Your task to perform on an android device: change text size in settings app Image 0: 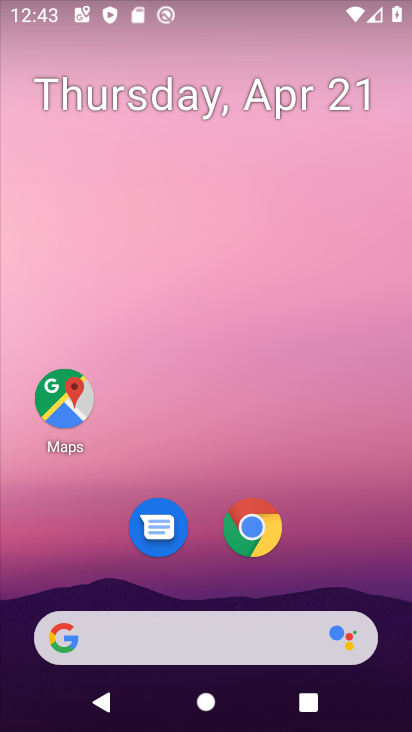
Step 0: drag from (330, 572) to (331, 96)
Your task to perform on an android device: change text size in settings app Image 1: 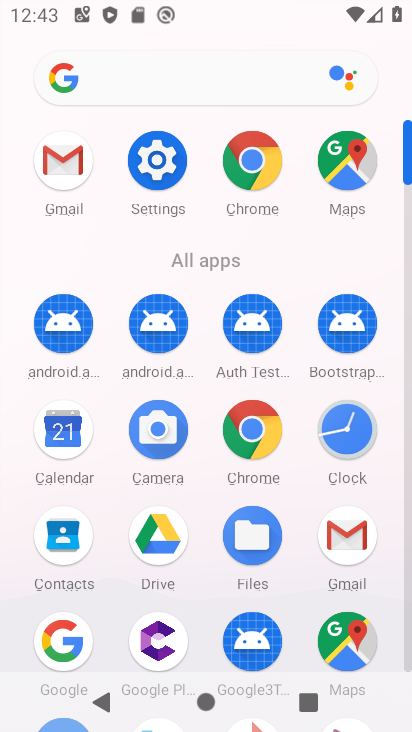
Step 1: click (159, 170)
Your task to perform on an android device: change text size in settings app Image 2: 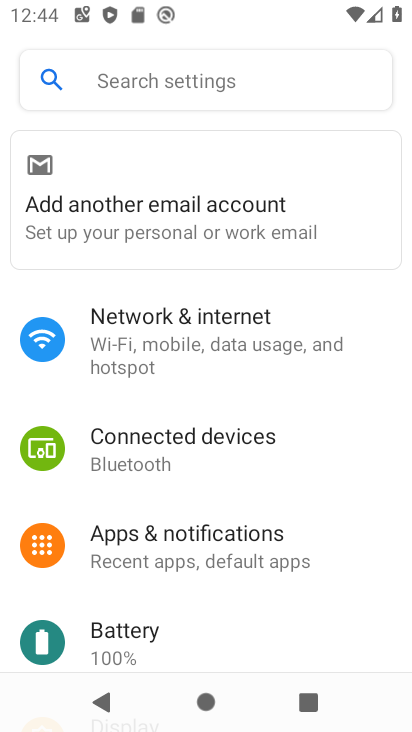
Step 2: drag from (347, 578) to (339, 421)
Your task to perform on an android device: change text size in settings app Image 3: 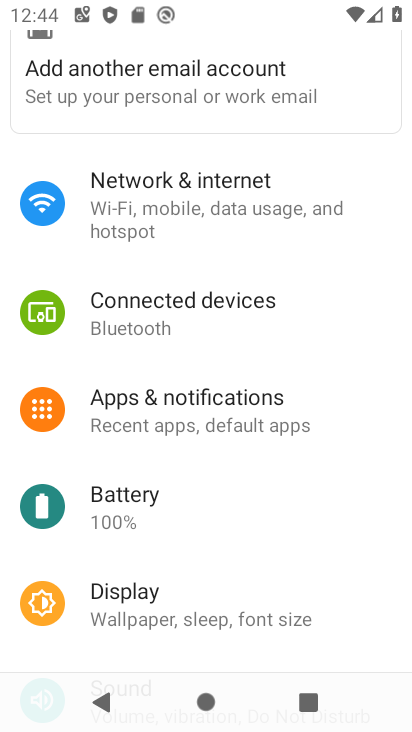
Step 3: drag from (337, 574) to (345, 414)
Your task to perform on an android device: change text size in settings app Image 4: 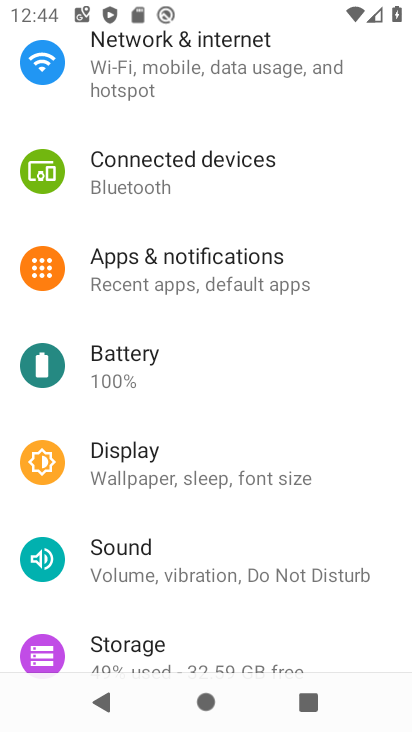
Step 4: drag from (359, 611) to (380, 451)
Your task to perform on an android device: change text size in settings app Image 5: 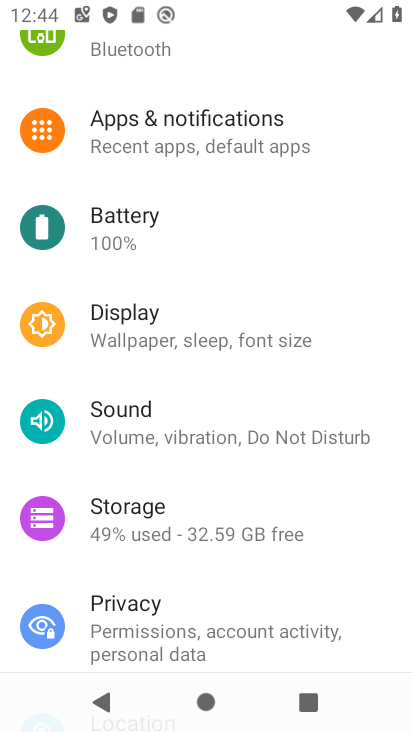
Step 5: drag from (379, 634) to (379, 474)
Your task to perform on an android device: change text size in settings app Image 6: 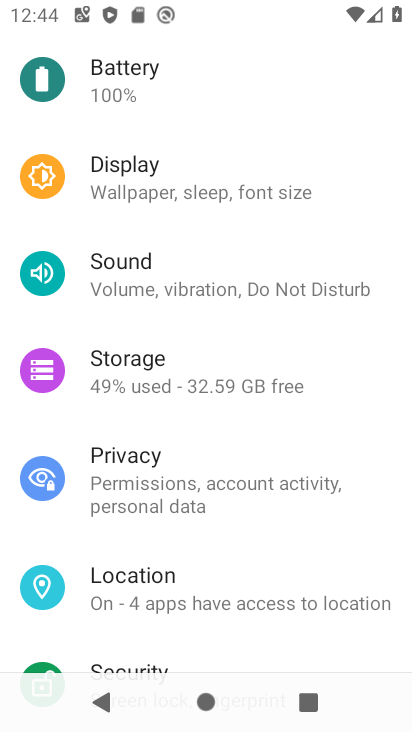
Step 6: click (243, 212)
Your task to perform on an android device: change text size in settings app Image 7: 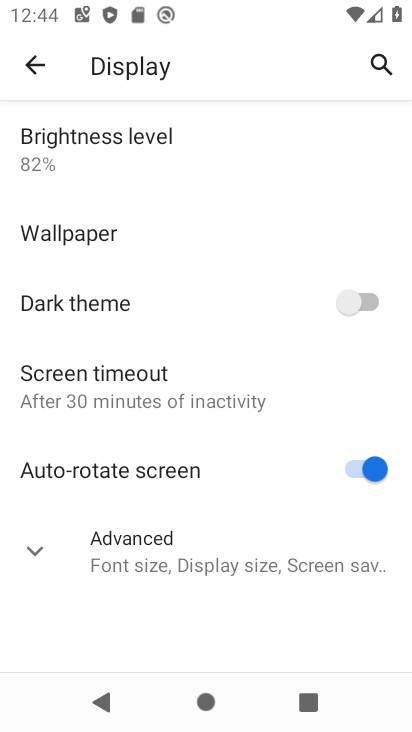
Step 7: click (219, 562)
Your task to perform on an android device: change text size in settings app Image 8: 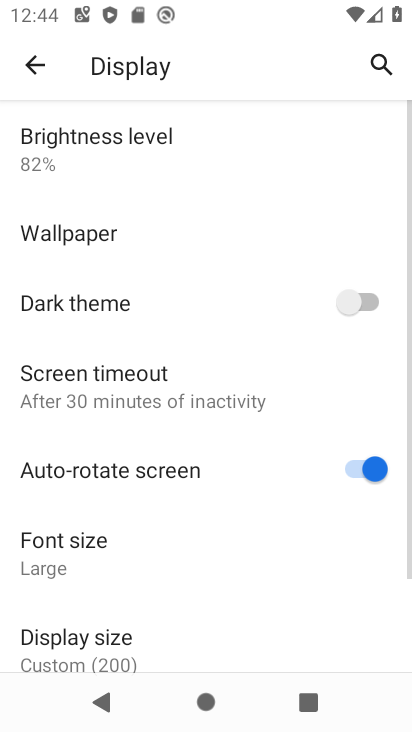
Step 8: drag from (232, 588) to (261, 366)
Your task to perform on an android device: change text size in settings app Image 9: 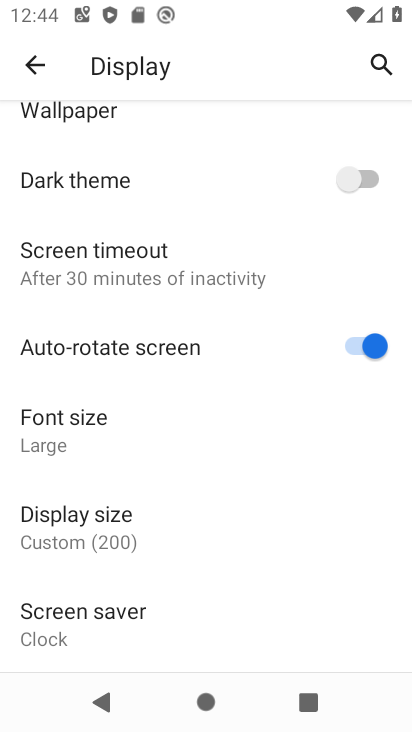
Step 9: drag from (257, 554) to (254, 395)
Your task to perform on an android device: change text size in settings app Image 10: 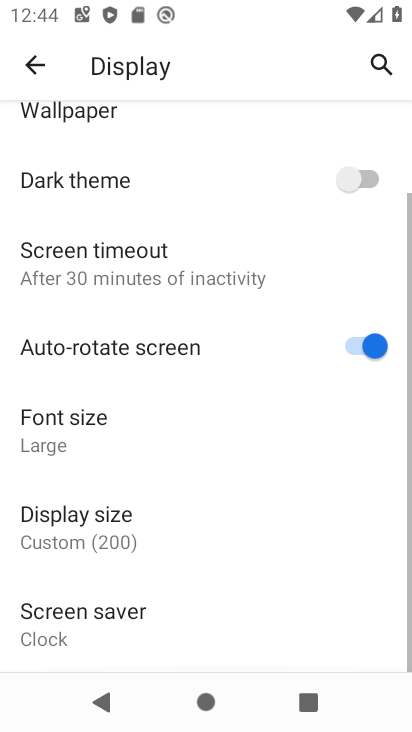
Step 10: click (66, 433)
Your task to perform on an android device: change text size in settings app Image 11: 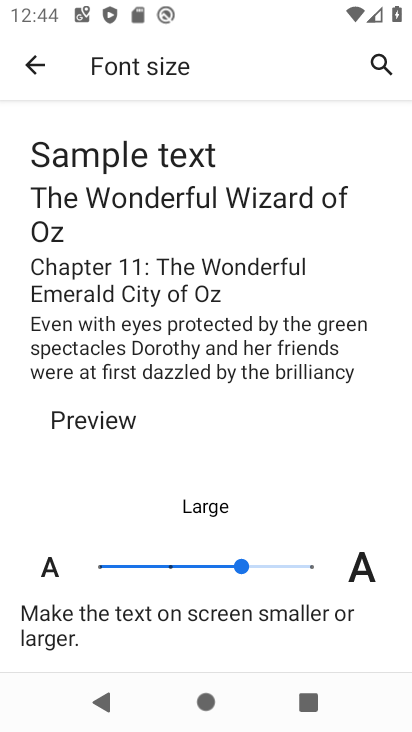
Step 11: click (171, 569)
Your task to perform on an android device: change text size in settings app Image 12: 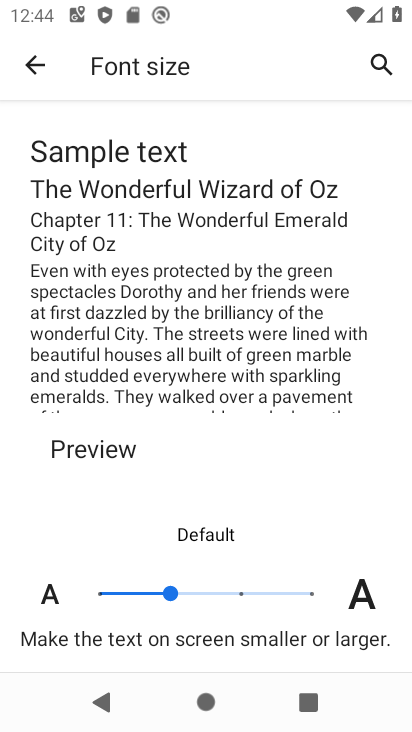
Step 12: task complete